Your task to perform on an android device: visit the assistant section in the google photos Image 0: 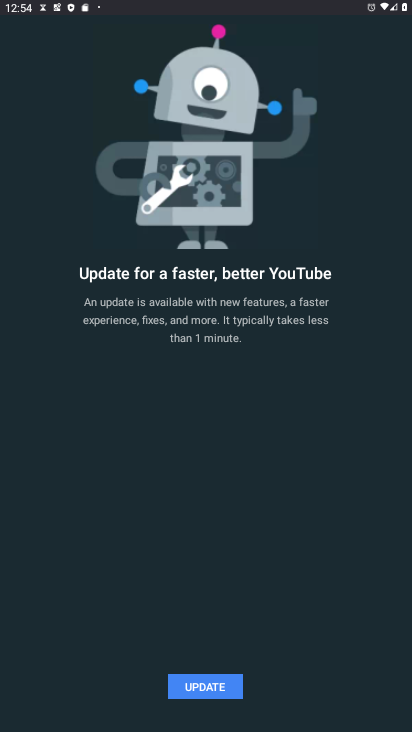
Step 0: press home button
Your task to perform on an android device: visit the assistant section in the google photos Image 1: 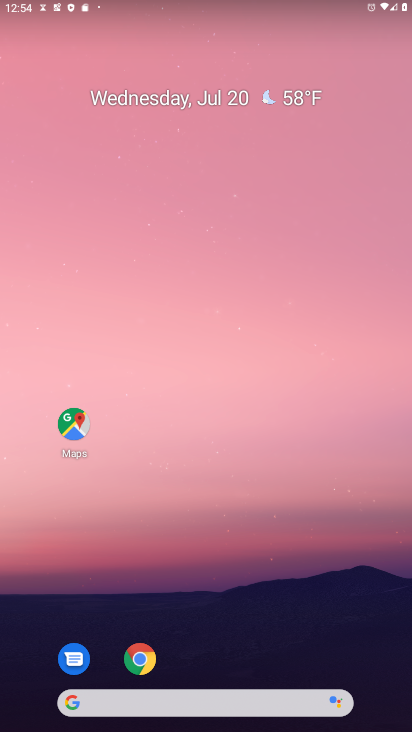
Step 1: drag from (207, 649) to (289, 91)
Your task to perform on an android device: visit the assistant section in the google photos Image 2: 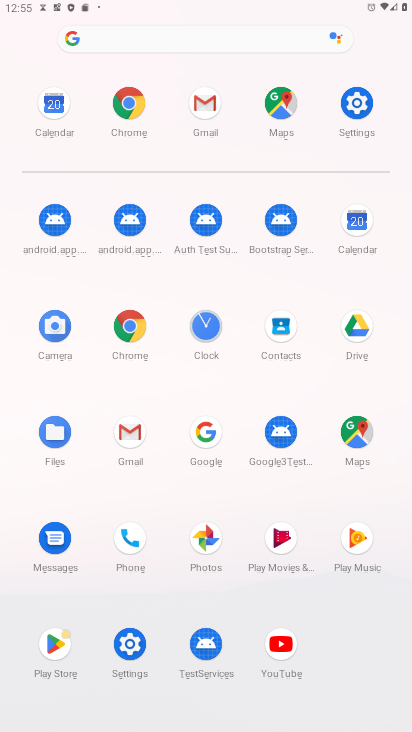
Step 2: click (206, 534)
Your task to perform on an android device: visit the assistant section in the google photos Image 3: 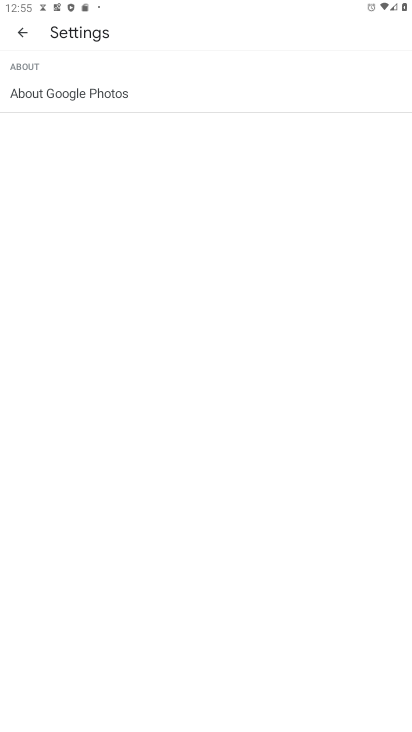
Step 3: click (20, 36)
Your task to perform on an android device: visit the assistant section in the google photos Image 4: 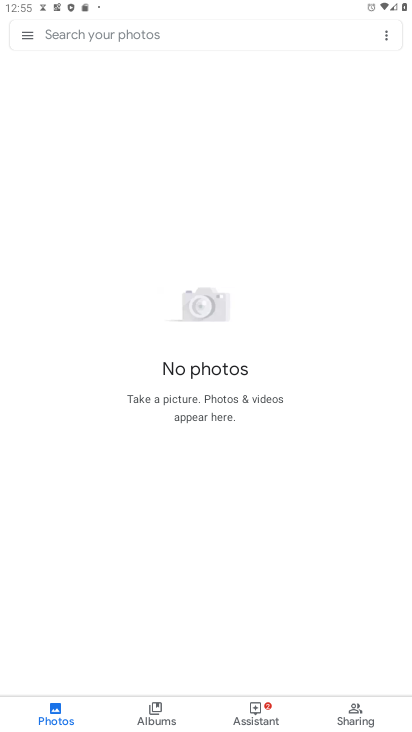
Step 4: click (266, 711)
Your task to perform on an android device: visit the assistant section in the google photos Image 5: 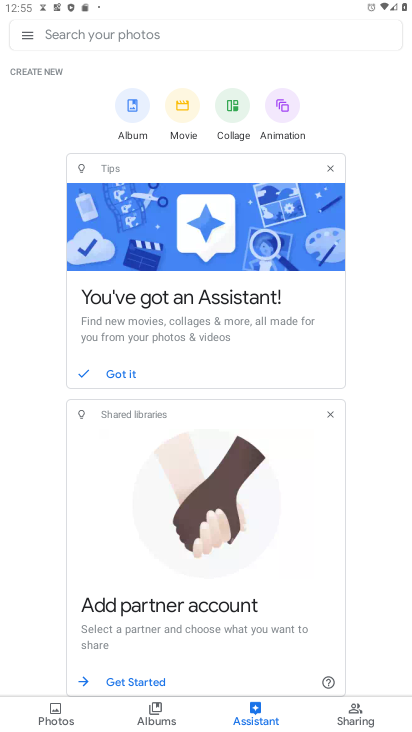
Step 5: task complete